Your task to perform on an android device: open app "Walmart Shopping & Grocery" (install if not already installed), go to login, and select forgot password Image 0: 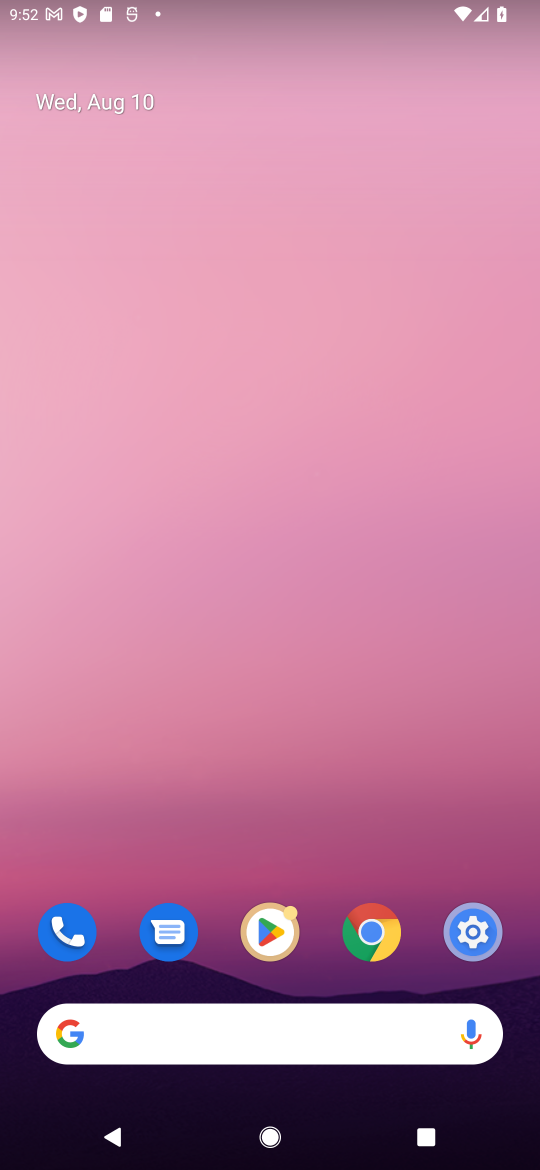
Step 0: click (256, 931)
Your task to perform on an android device: open app "Walmart Shopping & Grocery" (install if not already installed), go to login, and select forgot password Image 1: 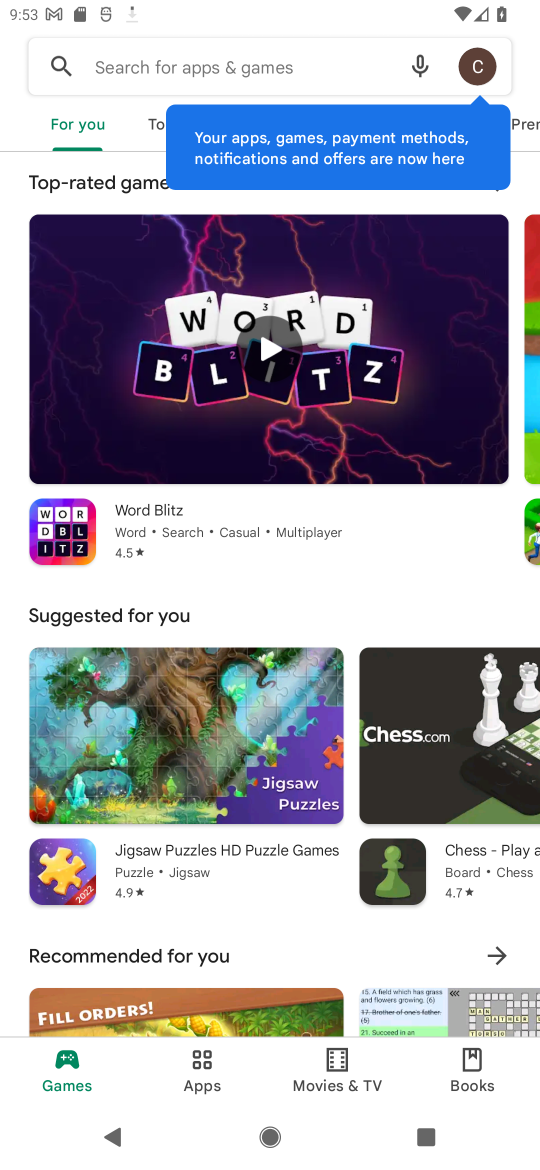
Step 1: click (209, 58)
Your task to perform on an android device: open app "Walmart Shopping & Grocery" (install if not already installed), go to login, and select forgot password Image 2: 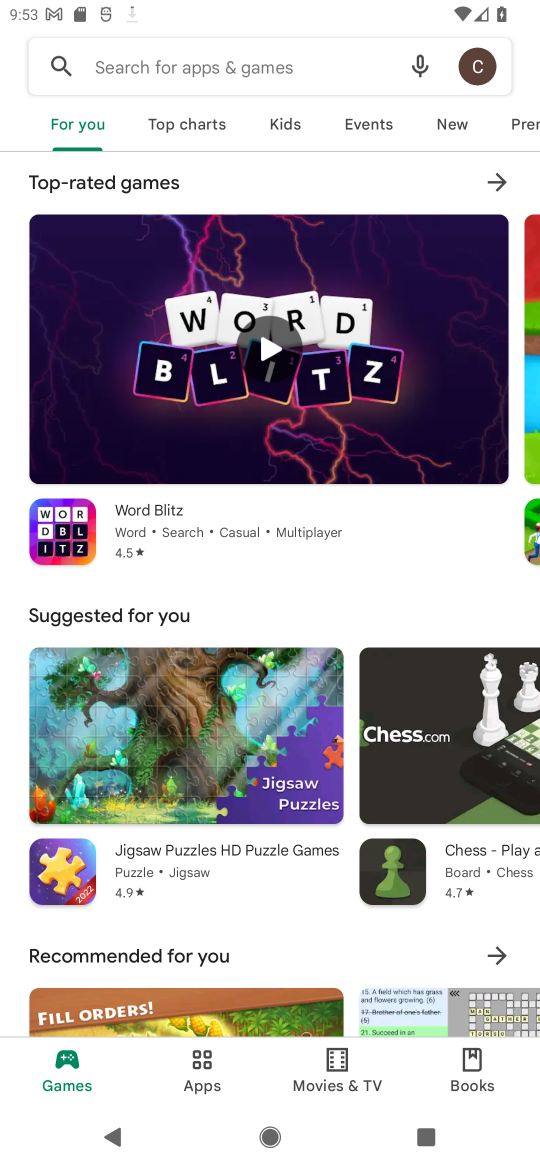
Step 2: click (120, 491)
Your task to perform on an android device: open app "Walmart Shopping & Grocery" (install if not already installed), go to login, and select forgot password Image 3: 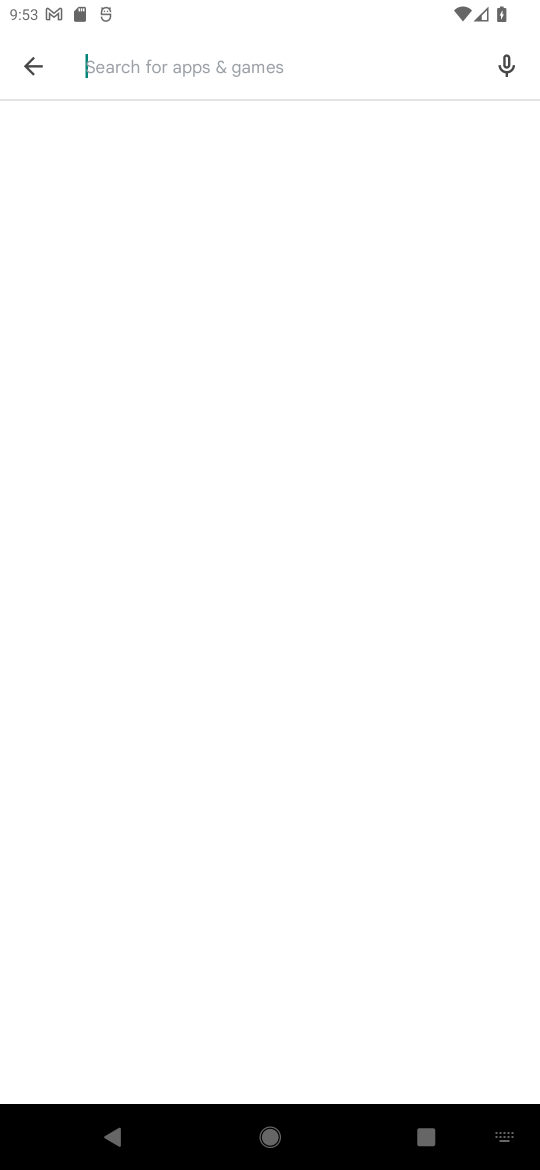
Step 3: type "walmart"
Your task to perform on an android device: open app "Walmart Shopping & Grocery" (install if not already installed), go to login, and select forgot password Image 4: 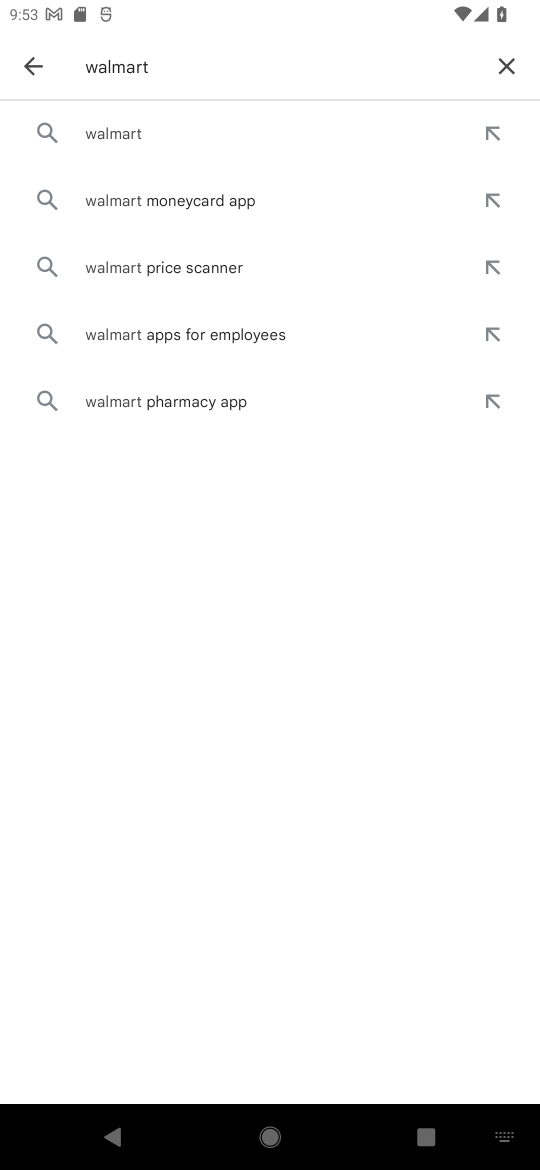
Step 4: click (176, 118)
Your task to perform on an android device: open app "Walmart Shopping & Grocery" (install if not already installed), go to login, and select forgot password Image 5: 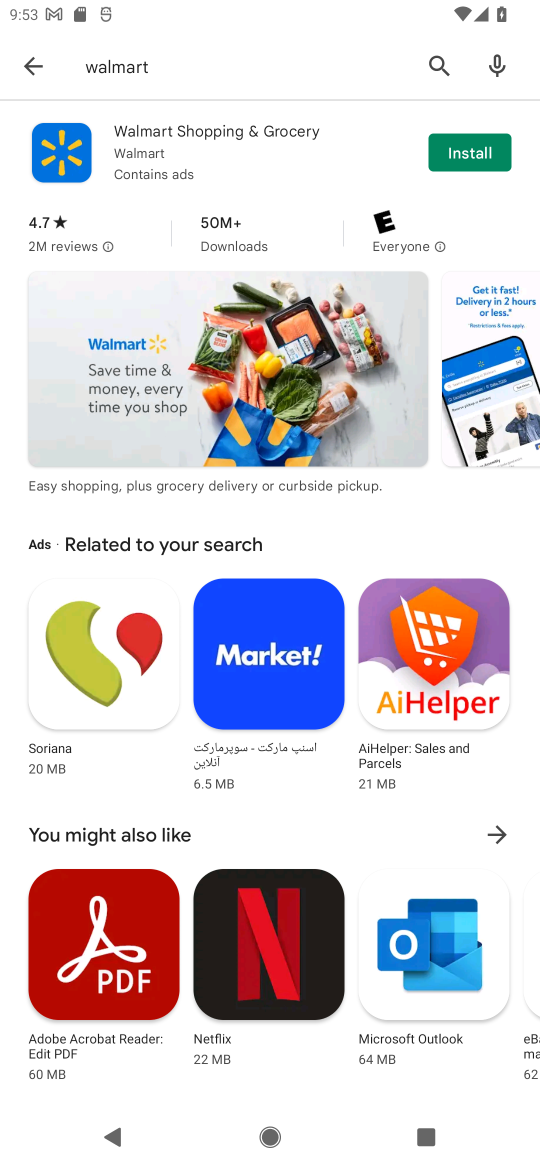
Step 5: click (446, 164)
Your task to perform on an android device: open app "Walmart Shopping & Grocery" (install if not already installed), go to login, and select forgot password Image 6: 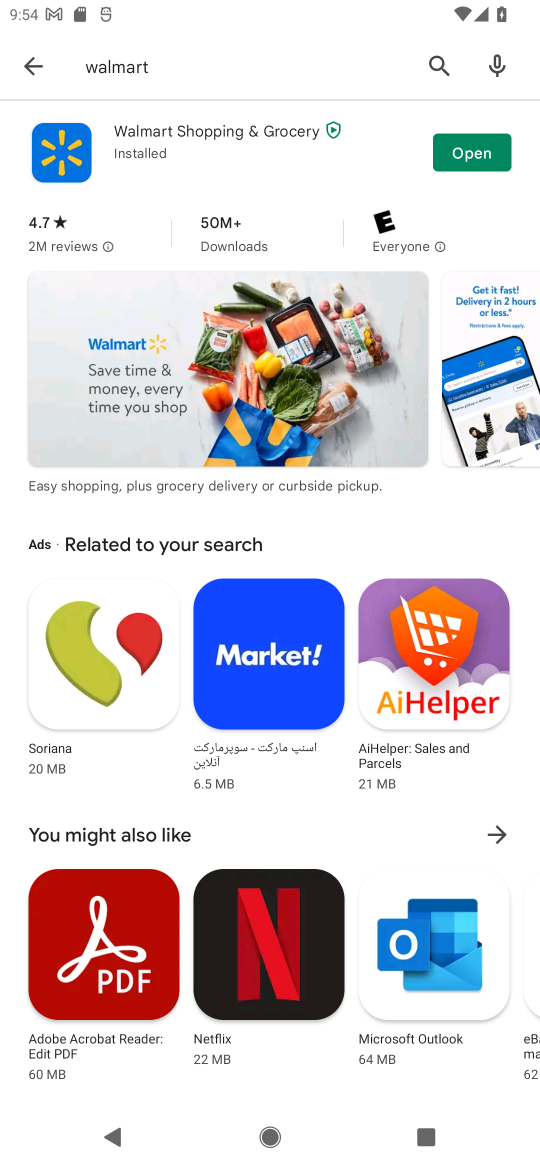
Step 6: click (460, 165)
Your task to perform on an android device: open app "Walmart Shopping & Grocery" (install if not already installed), go to login, and select forgot password Image 7: 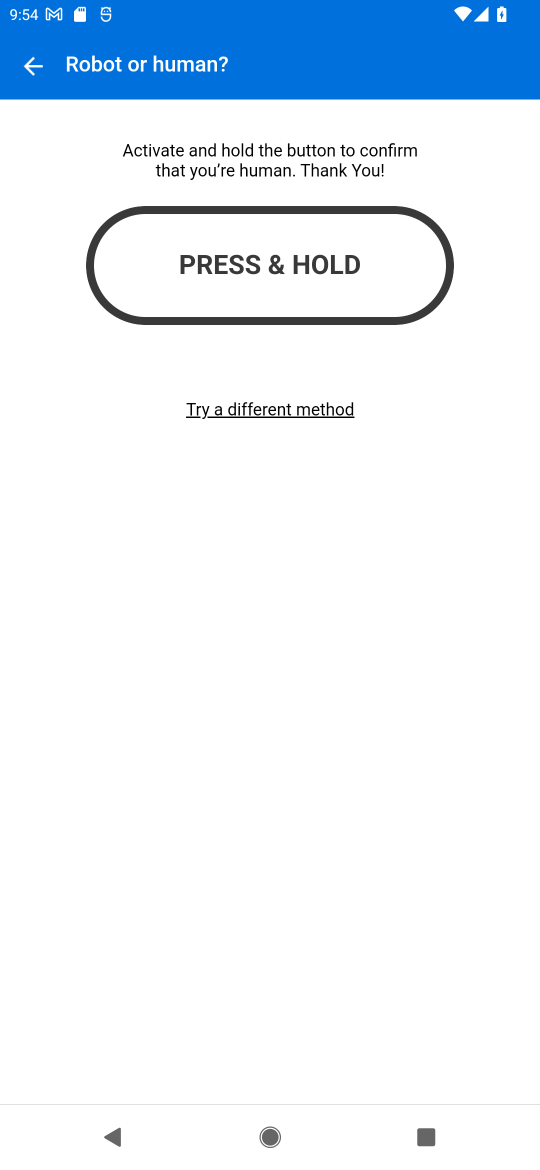
Step 7: click (182, 256)
Your task to perform on an android device: open app "Walmart Shopping & Grocery" (install if not already installed), go to login, and select forgot password Image 8: 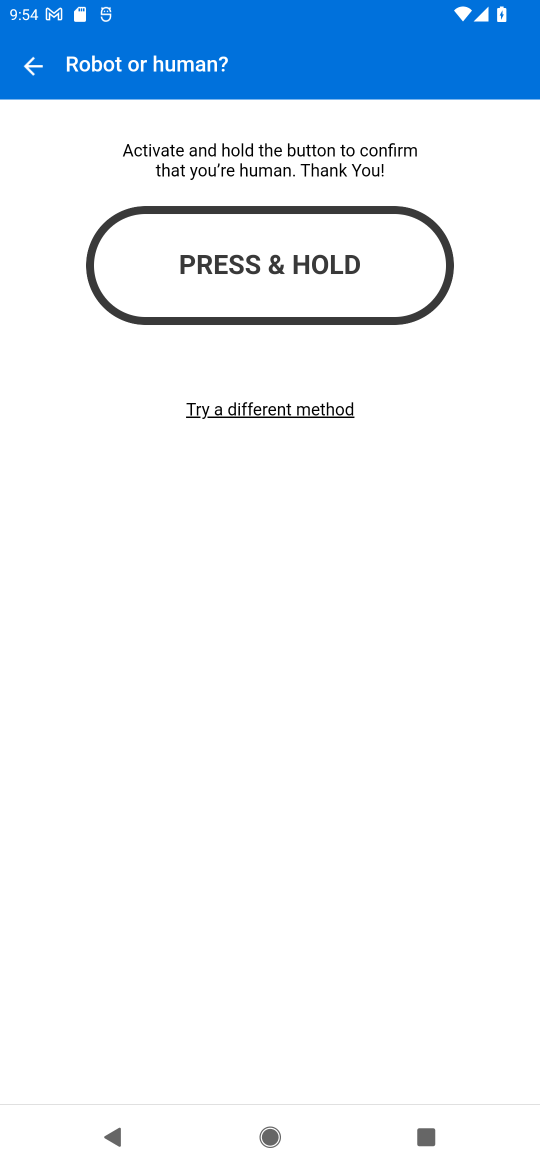
Step 8: click (182, 256)
Your task to perform on an android device: open app "Walmart Shopping & Grocery" (install if not already installed), go to login, and select forgot password Image 9: 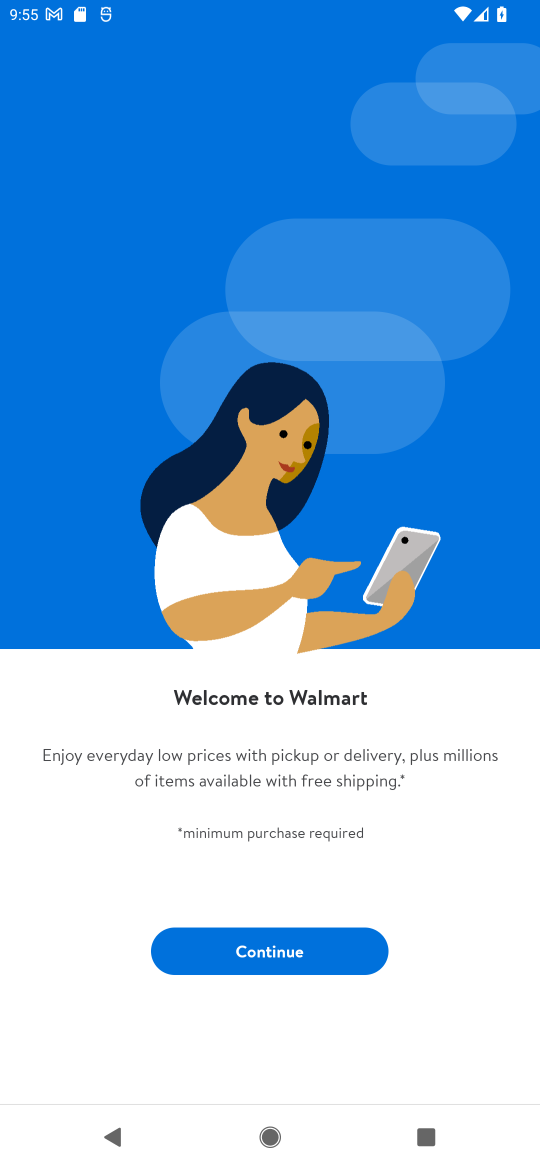
Step 9: click (267, 962)
Your task to perform on an android device: open app "Walmart Shopping & Grocery" (install if not already installed), go to login, and select forgot password Image 10: 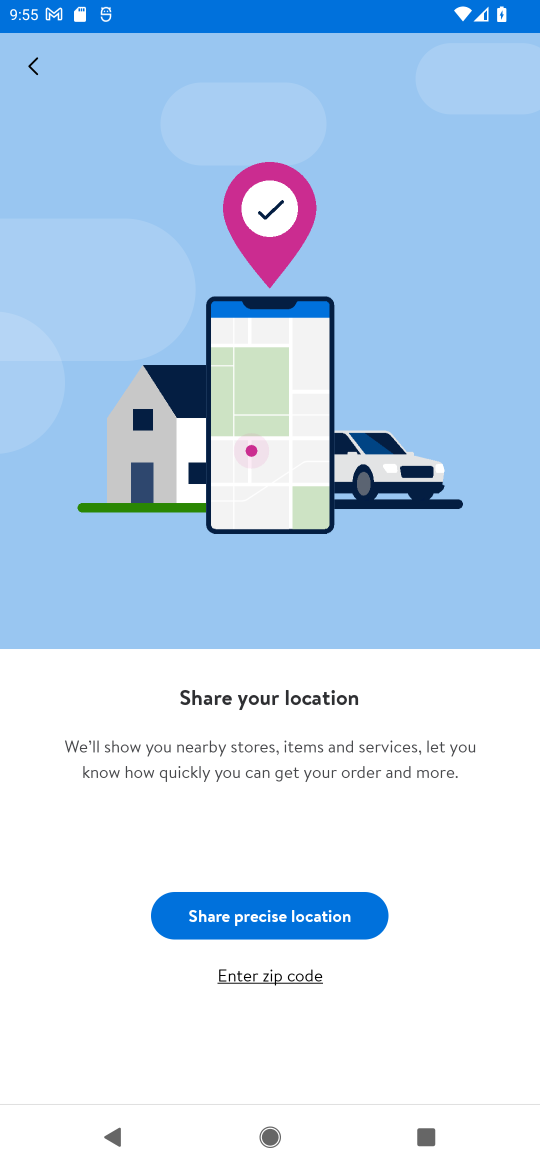
Step 10: click (281, 926)
Your task to perform on an android device: open app "Walmart Shopping & Grocery" (install if not already installed), go to login, and select forgot password Image 11: 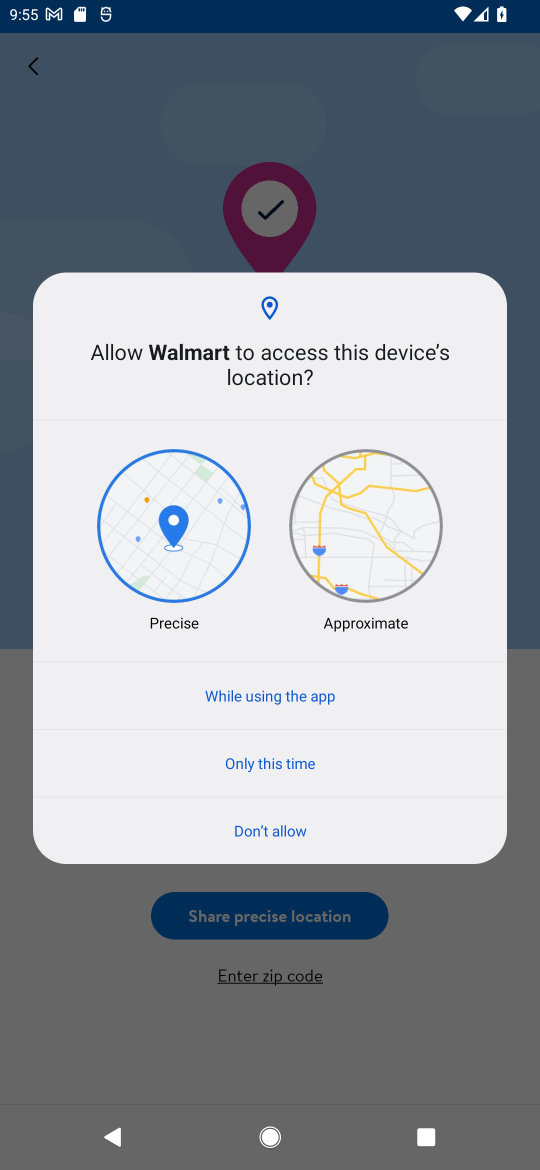
Step 11: click (318, 772)
Your task to perform on an android device: open app "Walmart Shopping & Grocery" (install if not already installed), go to login, and select forgot password Image 12: 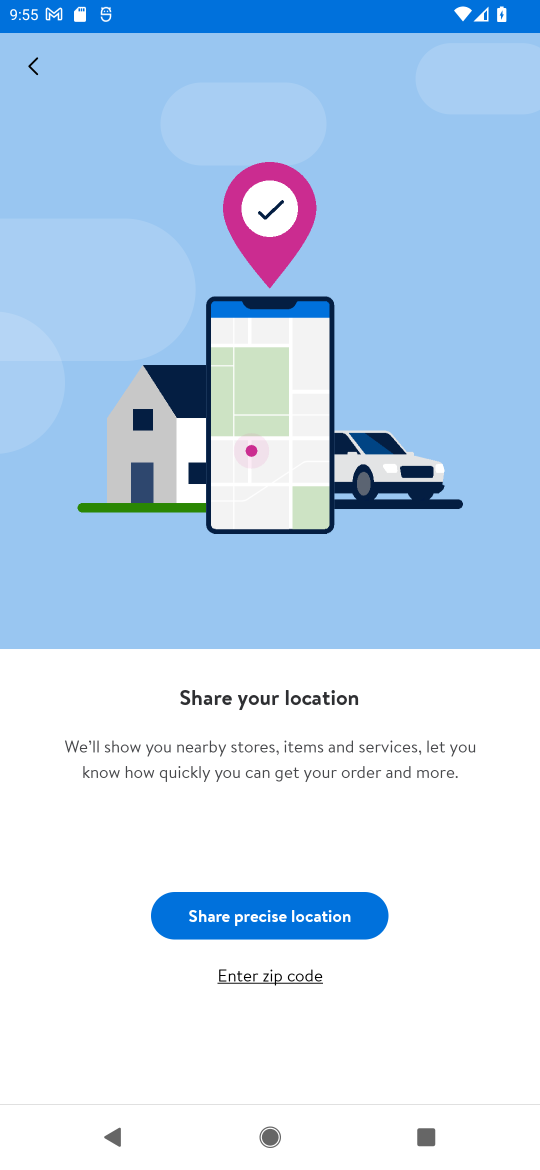
Step 12: click (271, 909)
Your task to perform on an android device: open app "Walmart Shopping & Grocery" (install if not already installed), go to login, and select forgot password Image 13: 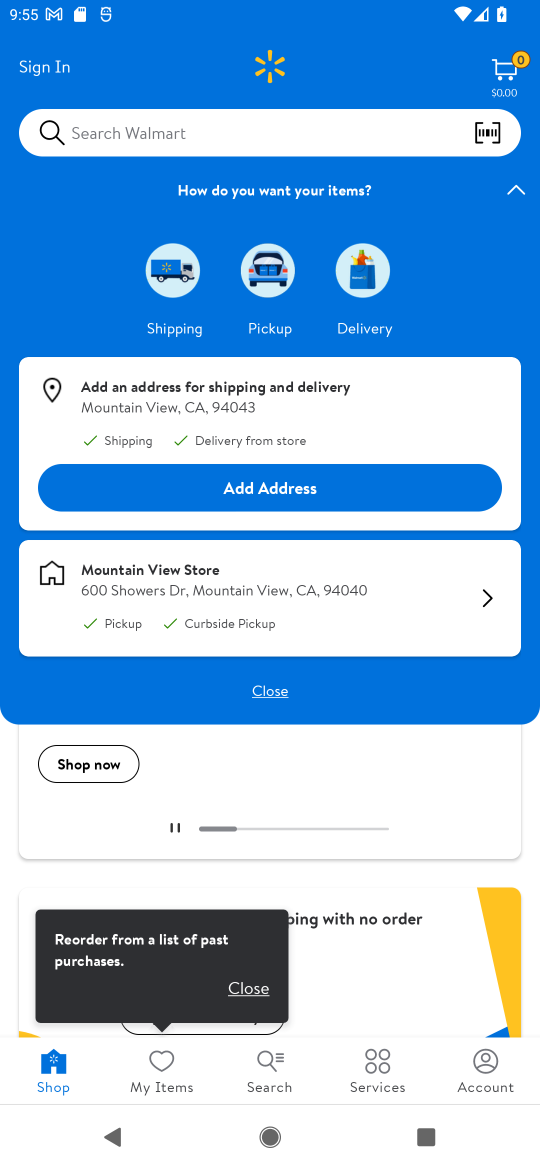
Step 13: click (497, 1076)
Your task to perform on an android device: open app "Walmart Shopping & Grocery" (install if not already installed), go to login, and select forgot password Image 14: 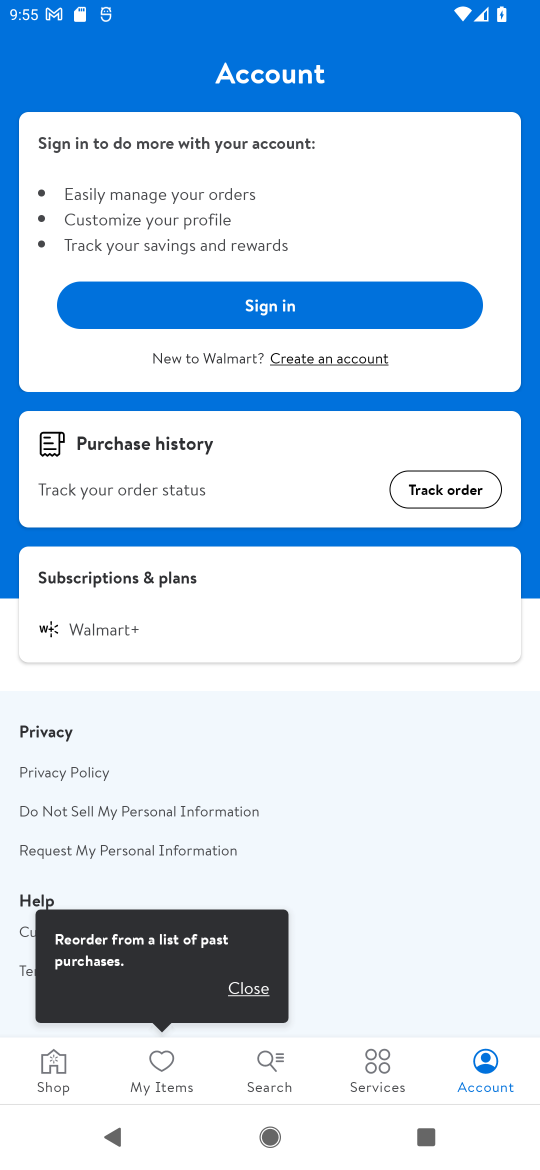
Step 14: click (243, 292)
Your task to perform on an android device: open app "Walmart Shopping & Grocery" (install if not already installed), go to login, and select forgot password Image 15: 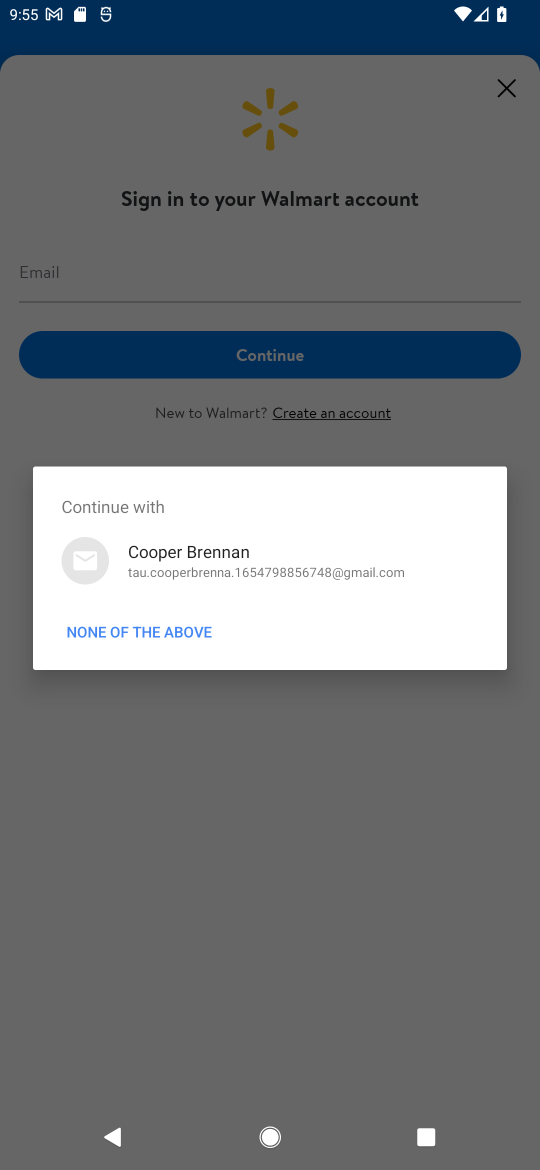
Step 15: task complete